Your task to perform on an android device: Go to Google Image 0: 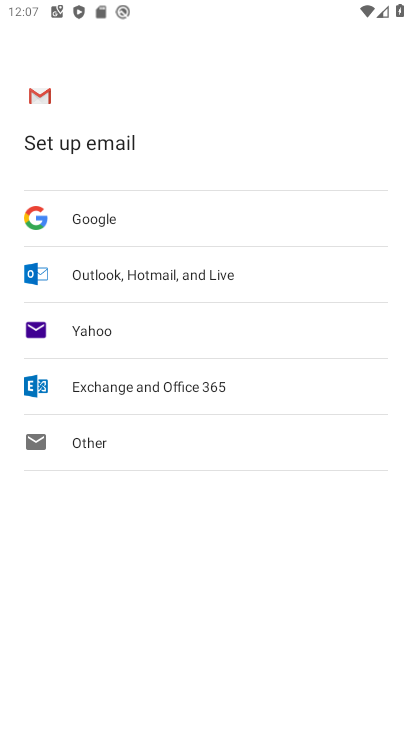
Step 0: press home button
Your task to perform on an android device: Go to Google Image 1: 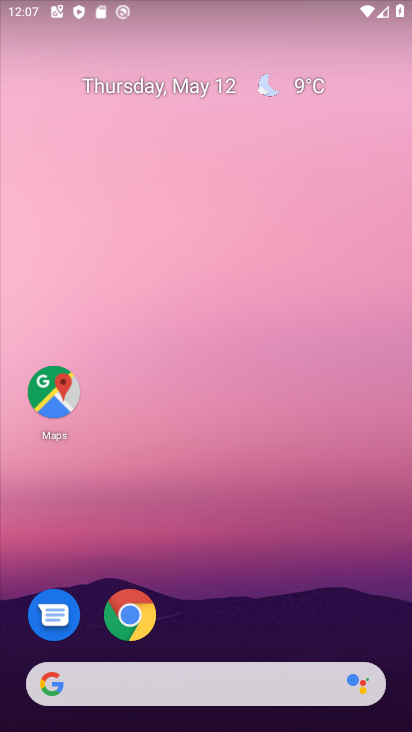
Step 1: drag from (203, 618) to (250, 161)
Your task to perform on an android device: Go to Google Image 2: 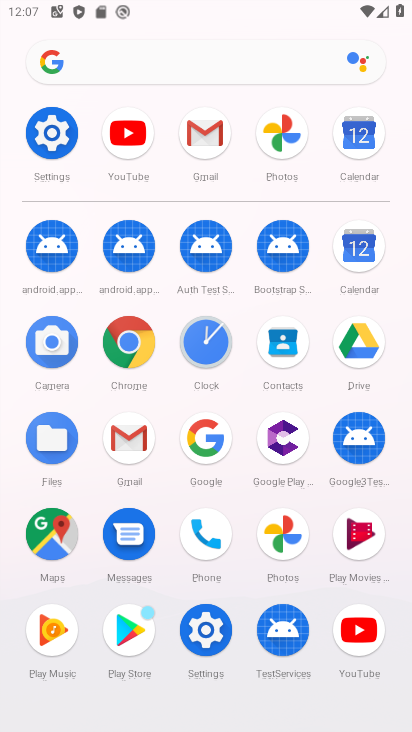
Step 2: click (191, 441)
Your task to perform on an android device: Go to Google Image 3: 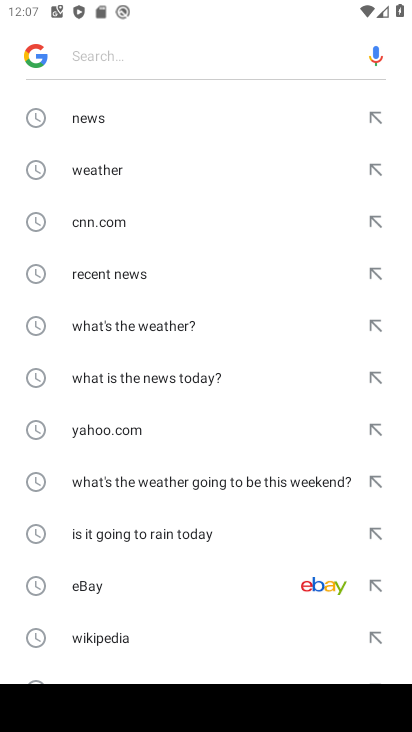
Step 3: task complete